Your task to perform on an android device: Turn off the flashlight Image 0: 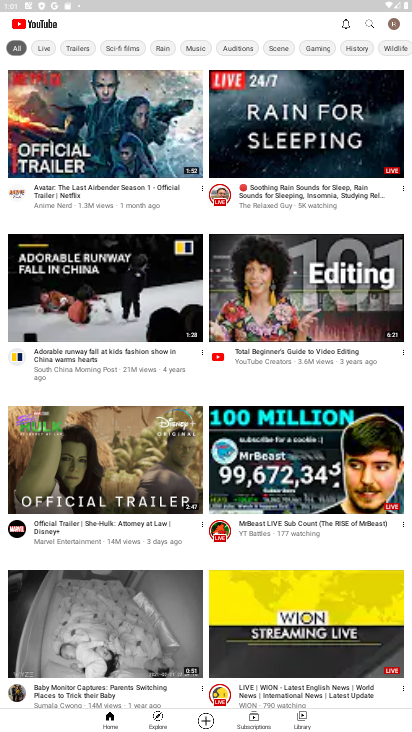
Step 0: press home button
Your task to perform on an android device: Turn off the flashlight Image 1: 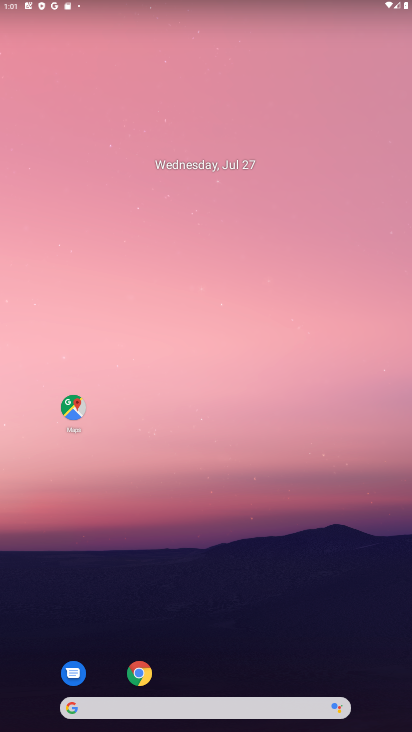
Step 1: task complete